Your task to perform on an android device: turn pop-ups off in chrome Image 0: 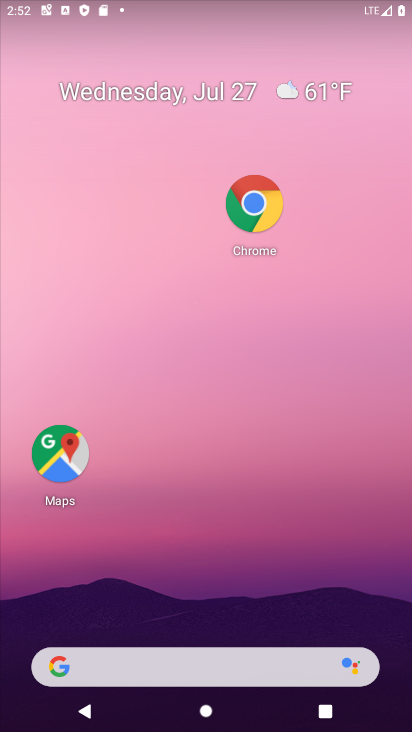
Step 0: click (254, 231)
Your task to perform on an android device: turn pop-ups off in chrome Image 1: 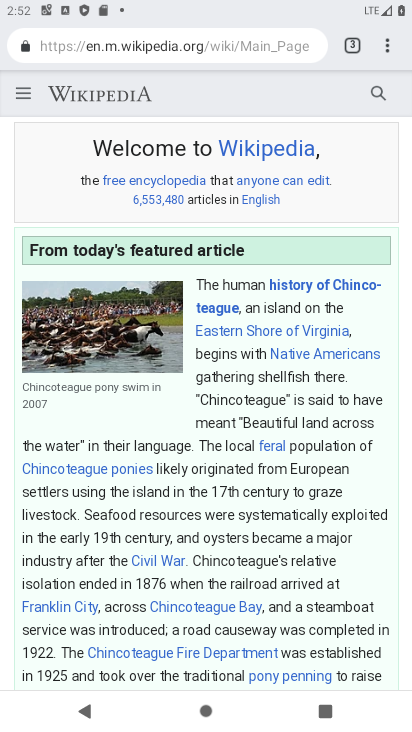
Step 1: click (393, 43)
Your task to perform on an android device: turn pop-ups off in chrome Image 2: 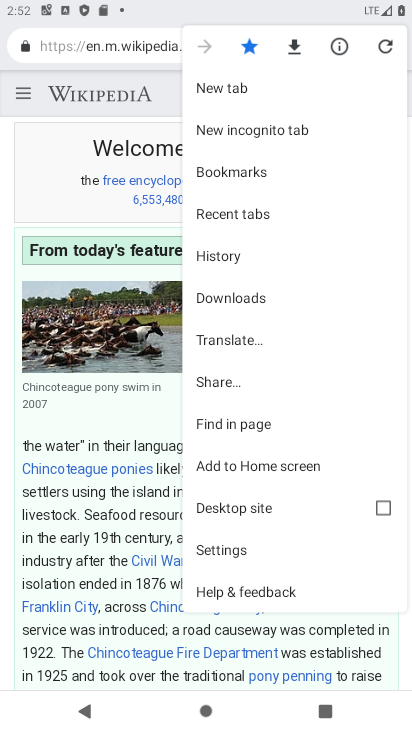
Step 2: click (241, 552)
Your task to perform on an android device: turn pop-ups off in chrome Image 3: 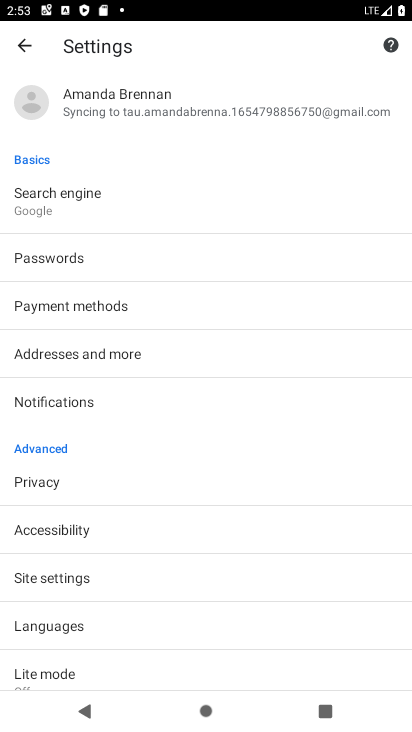
Step 3: click (99, 576)
Your task to perform on an android device: turn pop-ups off in chrome Image 4: 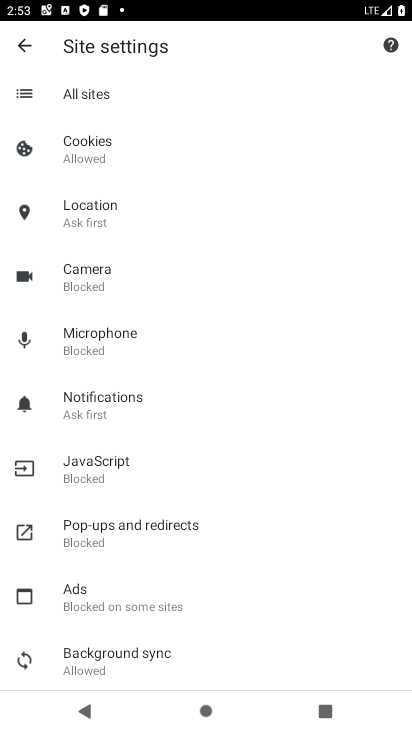
Step 4: click (91, 523)
Your task to perform on an android device: turn pop-ups off in chrome Image 5: 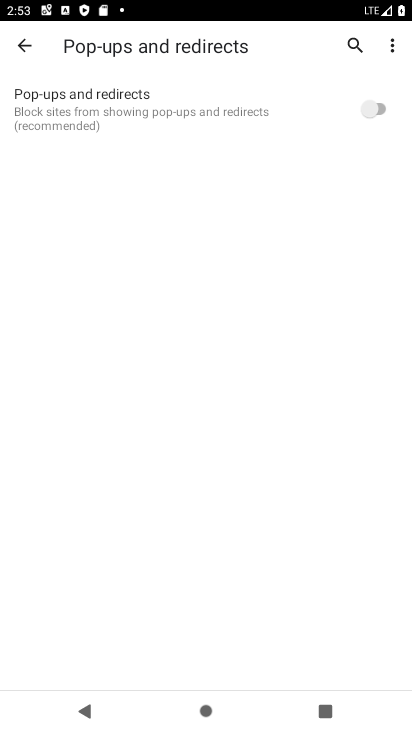
Step 5: task complete